Your task to perform on an android device: turn off sleep mode Image 0: 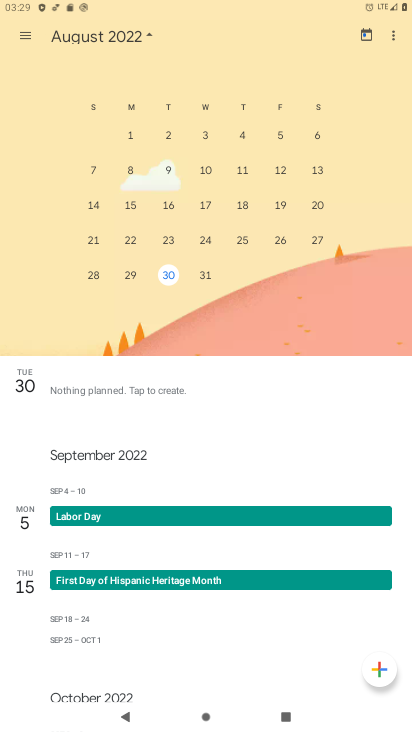
Step 0: drag from (288, 606) to (318, 393)
Your task to perform on an android device: turn off sleep mode Image 1: 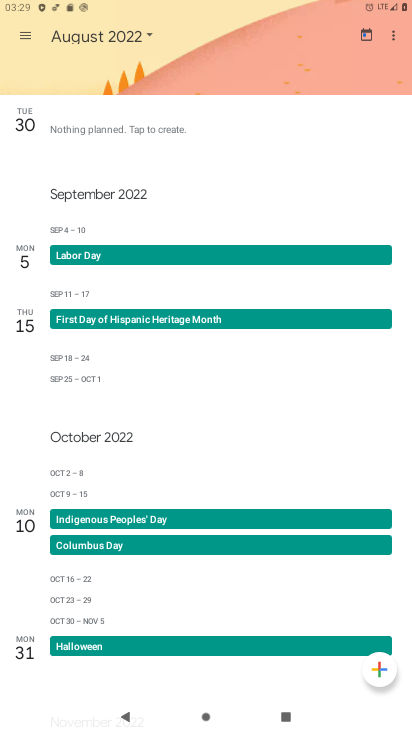
Step 1: press home button
Your task to perform on an android device: turn off sleep mode Image 2: 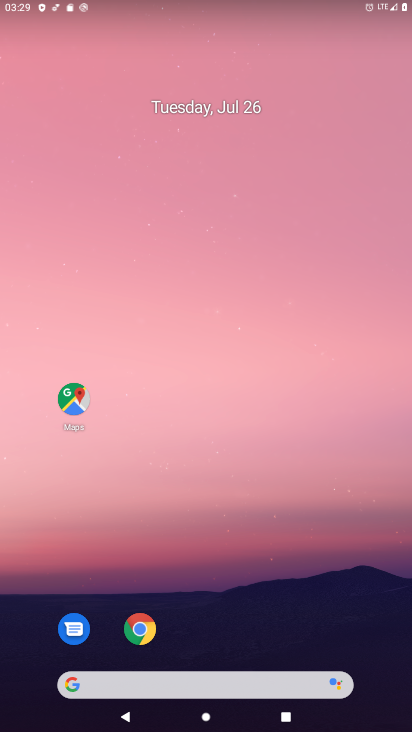
Step 2: drag from (277, 609) to (305, 127)
Your task to perform on an android device: turn off sleep mode Image 3: 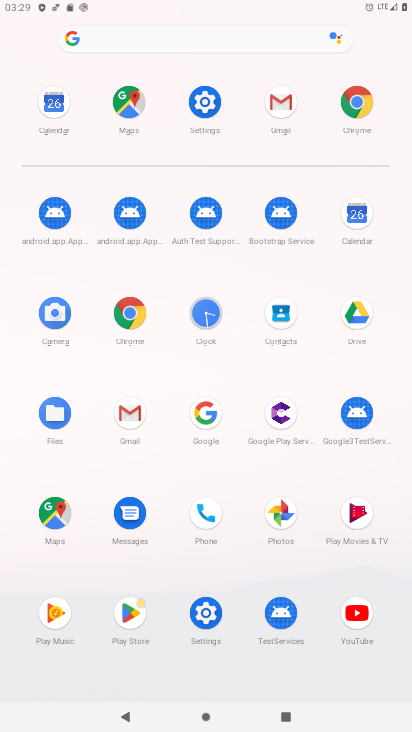
Step 3: click (210, 612)
Your task to perform on an android device: turn off sleep mode Image 4: 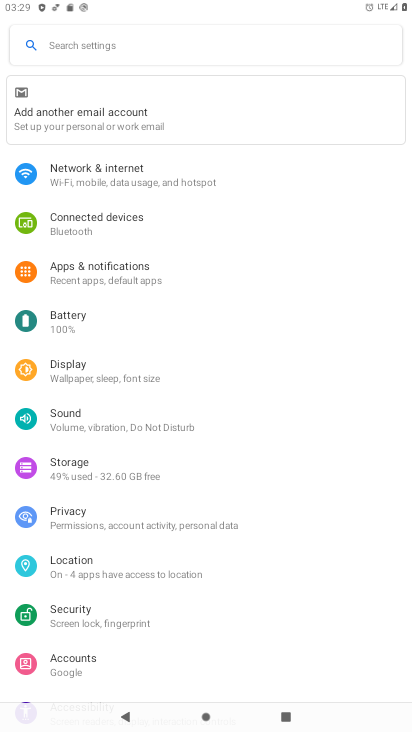
Step 4: click (90, 376)
Your task to perform on an android device: turn off sleep mode Image 5: 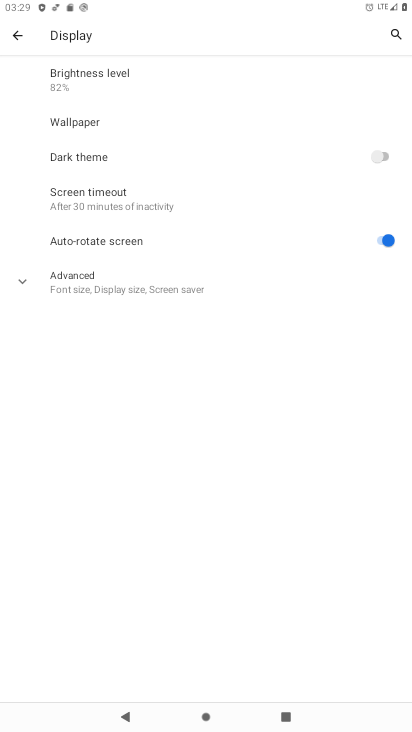
Step 5: click (137, 203)
Your task to perform on an android device: turn off sleep mode Image 6: 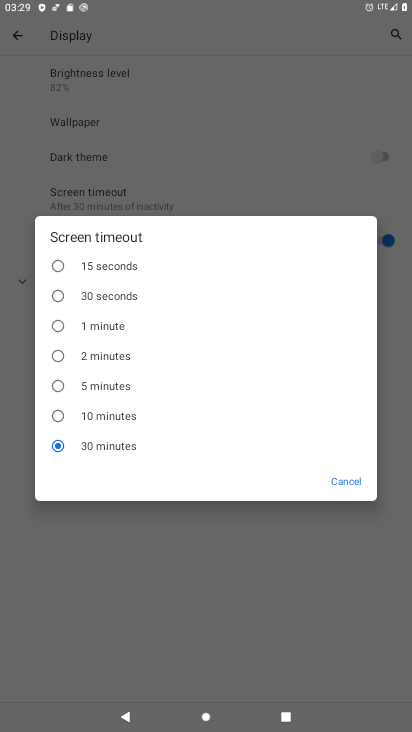
Step 6: click (111, 412)
Your task to perform on an android device: turn off sleep mode Image 7: 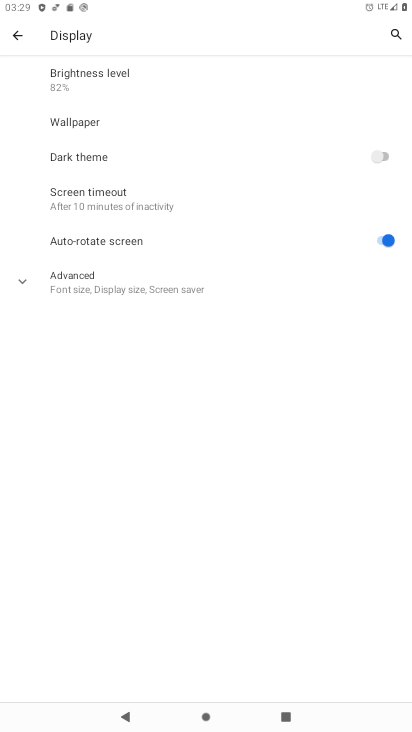
Step 7: task complete